Your task to perform on an android device: remove spam from my inbox in the gmail app Image 0: 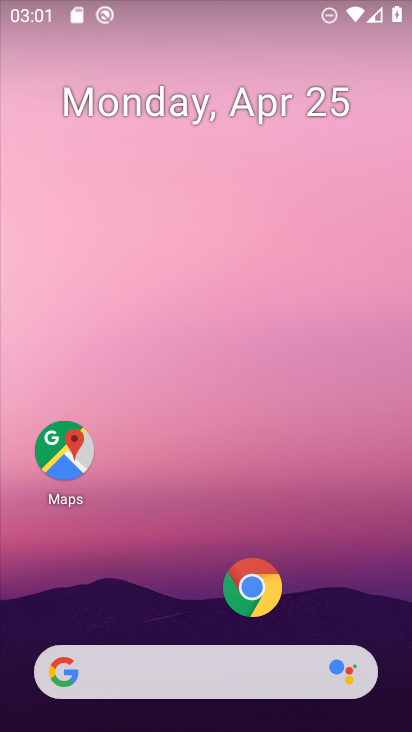
Step 0: drag from (198, 625) to (208, 67)
Your task to perform on an android device: remove spam from my inbox in the gmail app Image 1: 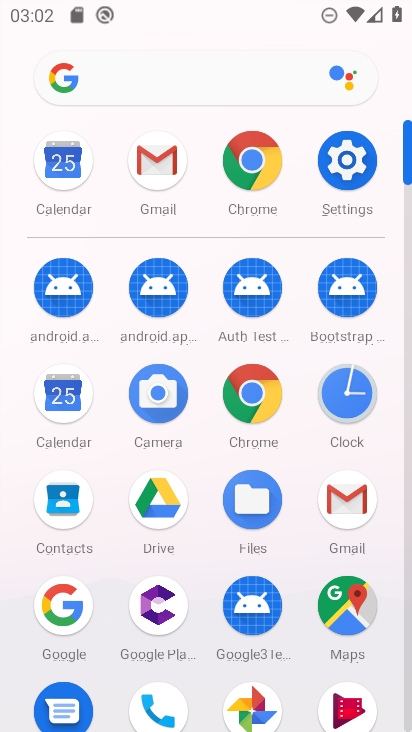
Step 1: click (344, 493)
Your task to perform on an android device: remove spam from my inbox in the gmail app Image 2: 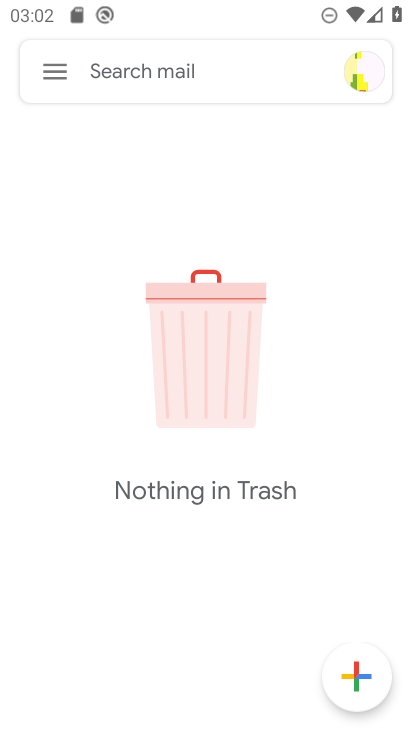
Step 2: click (56, 61)
Your task to perform on an android device: remove spam from my inbox in the gmail app Image 3: 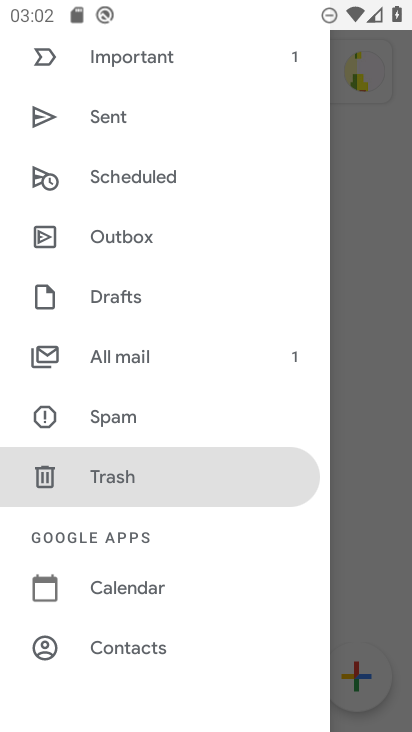
Step 3: drag from (199, 644) to (205, 39)
Your task to perform on an android device: remove spam from my inbox in the gmail app Image 4: 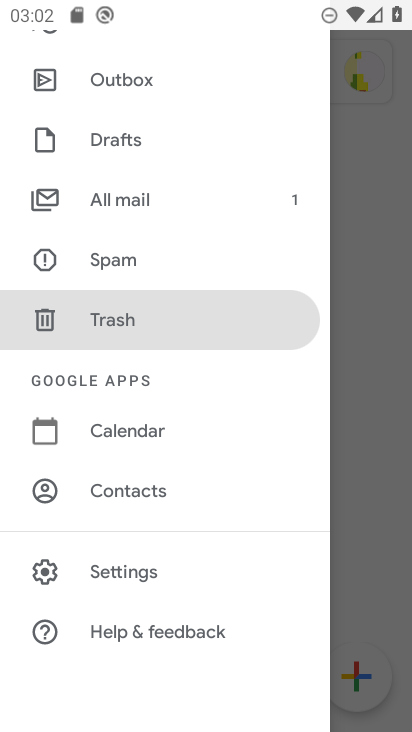
Step 4: click (131, 252)
Your task to perform on an android device: remove spam from my inbox in the gmail app Image 5: 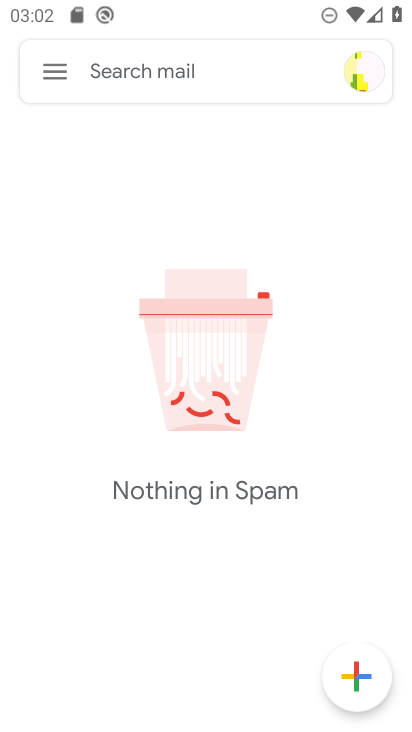
Step 5: task complete